Your task to perform on an android device: Open the calendar and show me this week's events? Image 0: 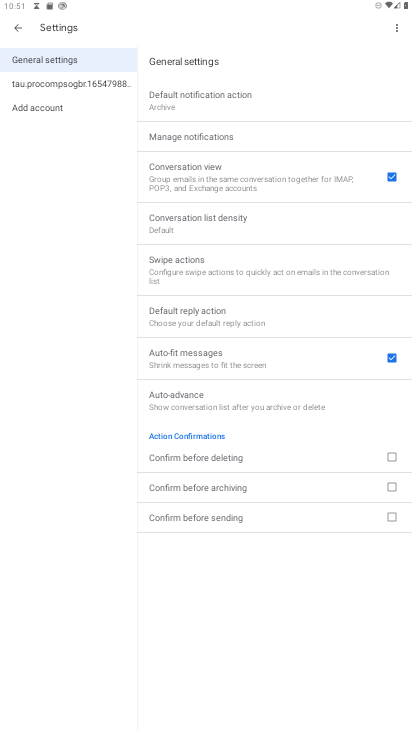
Step 0: press home button
Your task to perform on an android device: Open the calendar and show me this week's events? Image 1: 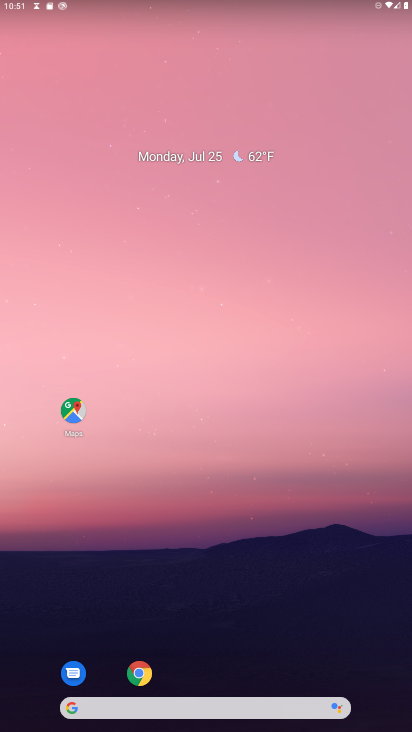
Step 1: drag from (255, 632) to (85, 146)
Your task to perform on an android device: Open the calendar and show me this week's events? Image 2: 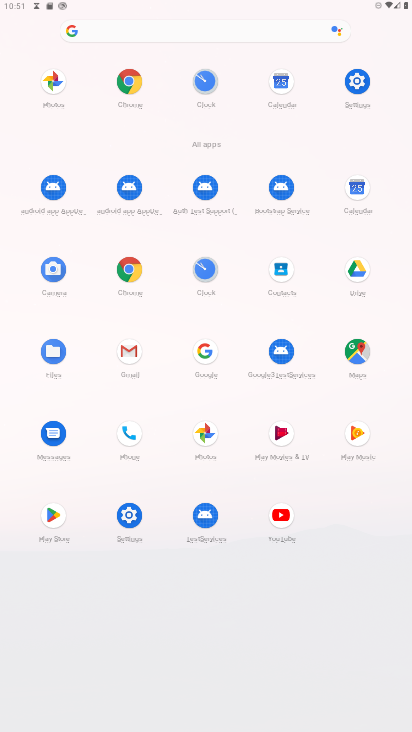
Step 2: click (357, 186)
Your task to perform on an android device: Open the calendar and show me this week's events? Image 3: 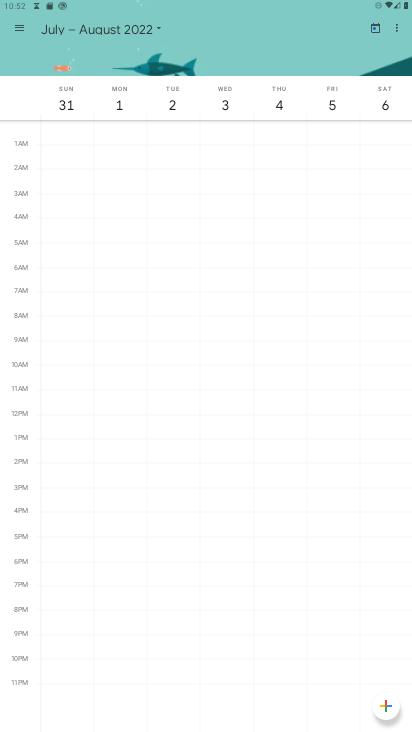
Step 3: task complete